Your task to perform on an android device: turn on bluetooth scan Image 0: 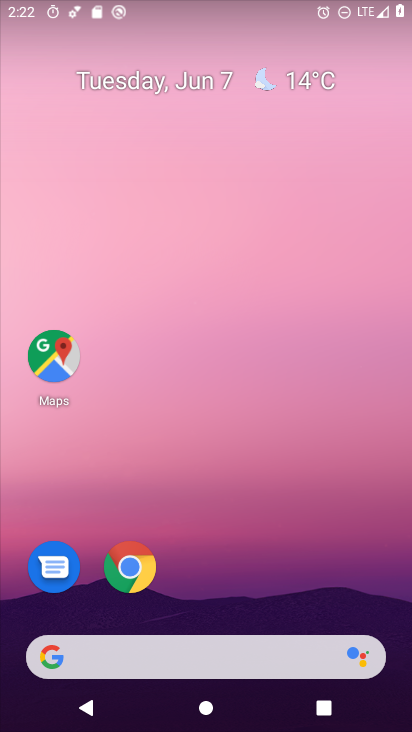
Step 0: drag from (294, 547) to (355, 66)
Your task to perform on an android device: turn on bluetooth scan Image 1: 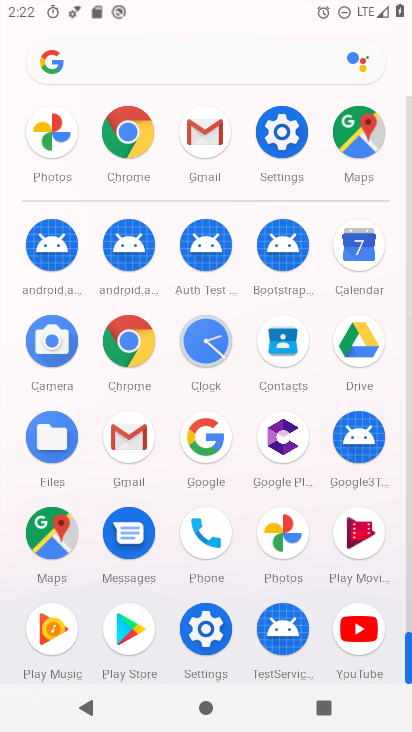
Step 1: click (278, 134)
Your task to perform on an android device: turn on bluetooth scan Image 2: 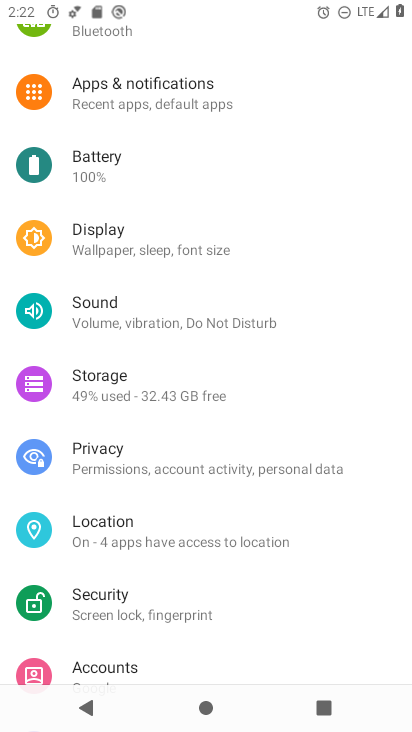
Step 2: click (151, 517)
Your task to perform on an android device: turn on bluetooth scan Image 3: 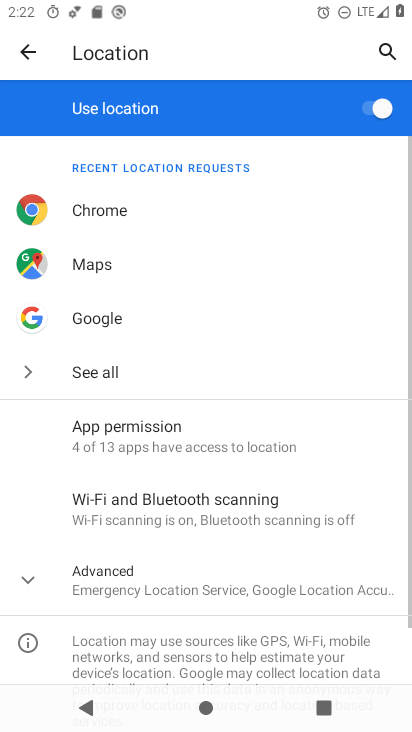
Step 3: click (154, 501)
Your task to perform on an android device: turn on bluetooth scan Image 4: 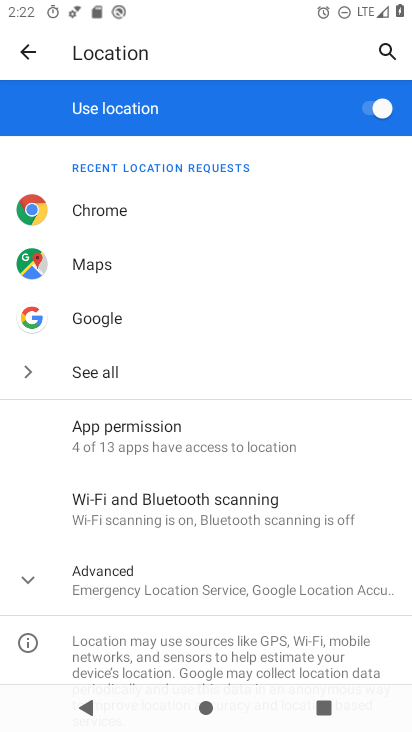
Step 4: click (183, 511)
Your task to perform on an android device: turn on bluetooth scan Image 5: 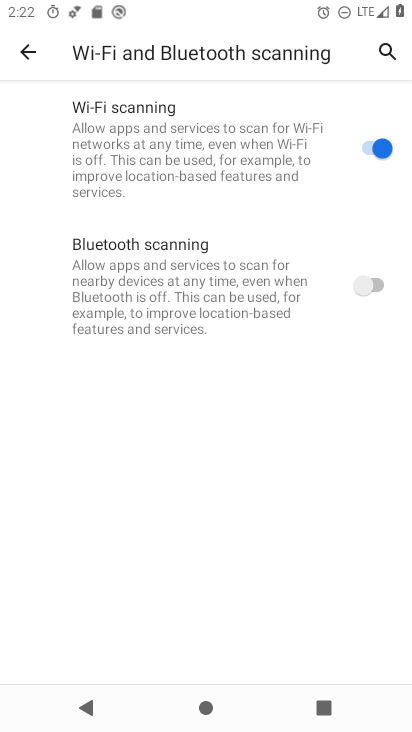
Step 5: click (365, 285)
Your task to perform on an android device: turn on bluetooth scan Image 6: 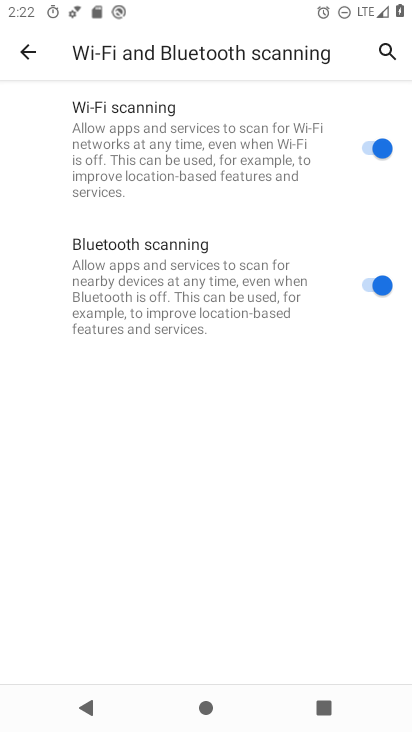
Step 6: task complete